Your task to perform on an android device: Open eBay Image 0: 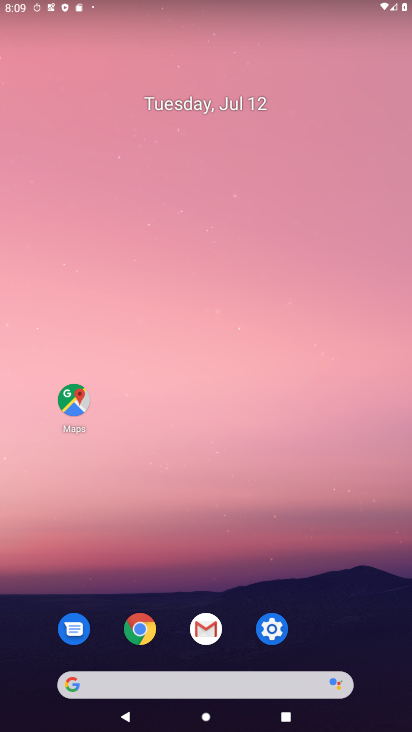
Step 0: click (151, 631)
Your task to perform on an android device: Open eBay Image 1: 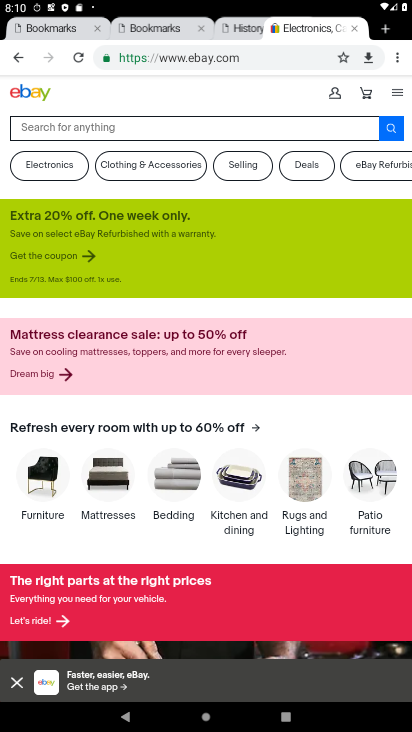
Step 1: click (258, 61)
Your task to perform on an android device: Open eBay Image 2: 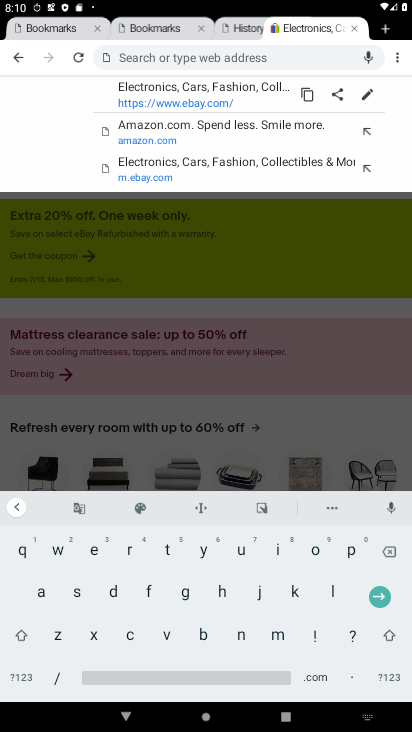
Step 2: click (205, 86)
Your task to perform on an android device: Open eBay Image 3: 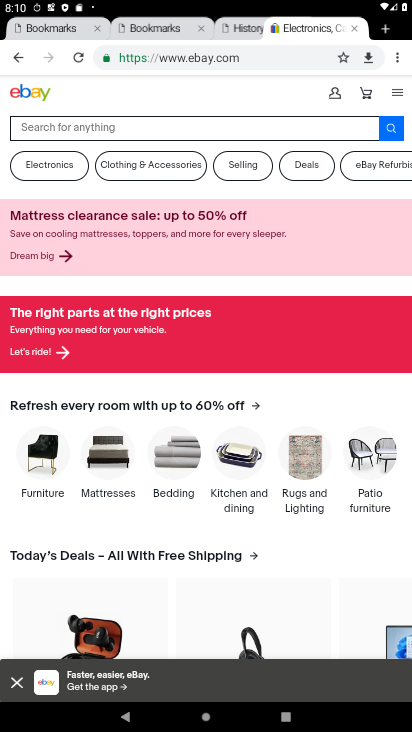
Step 3: task complete